Your task to perform on an android device: install app "PUBG MOBILE" Image 0: 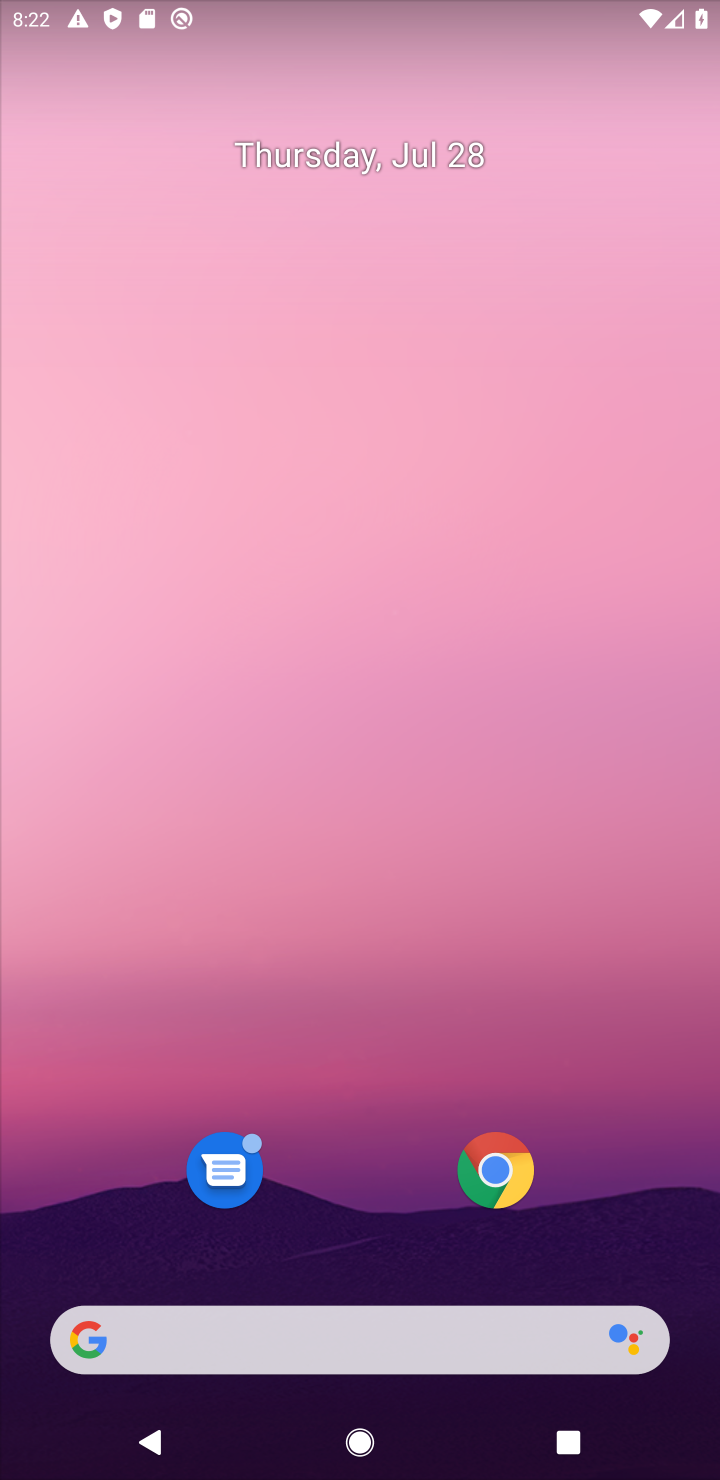
Step 0: drag from (415, 1302) to (402, 422)
Your task to perform on an android device: install app "PUBG MOBILE" Image 1: 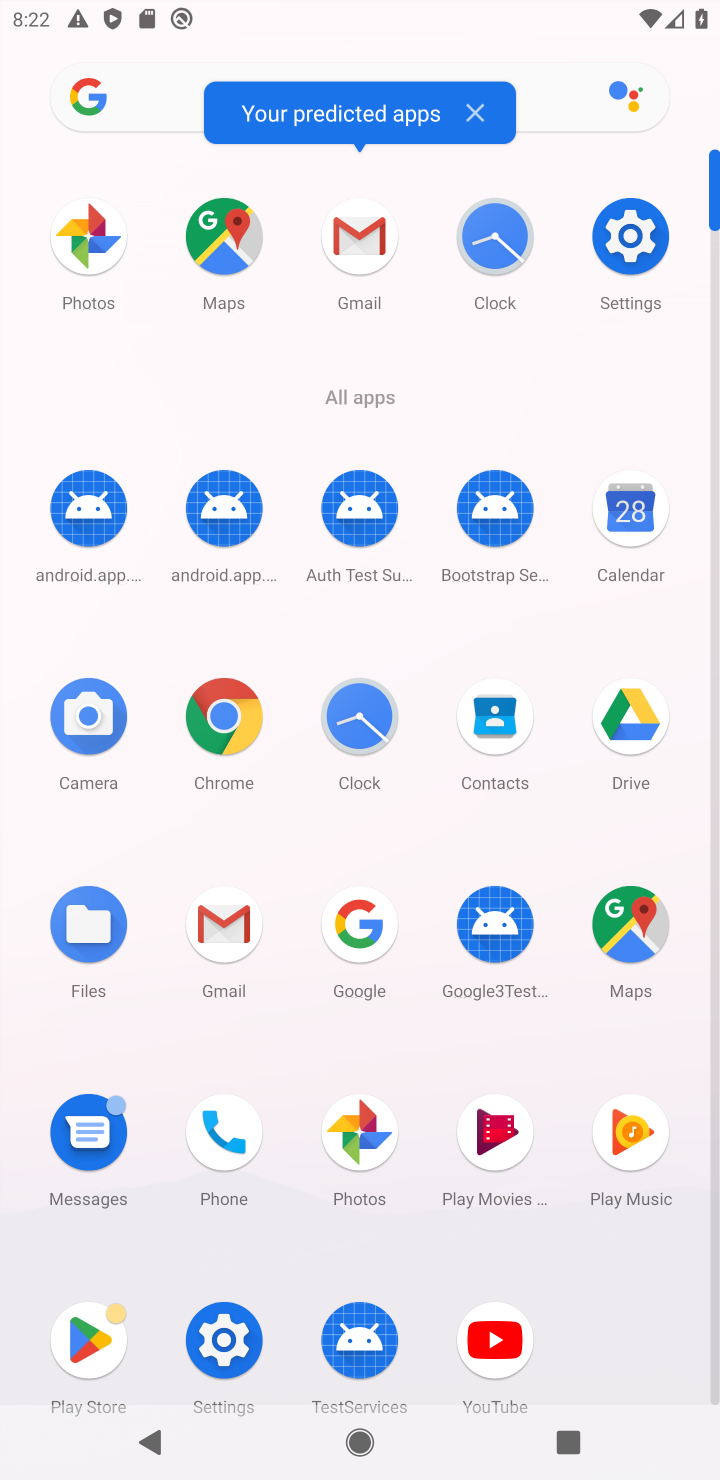
Step 1: click (79, 1351)
Your task to perform on an android device: install app "PUBG MOBILE" Image 2: 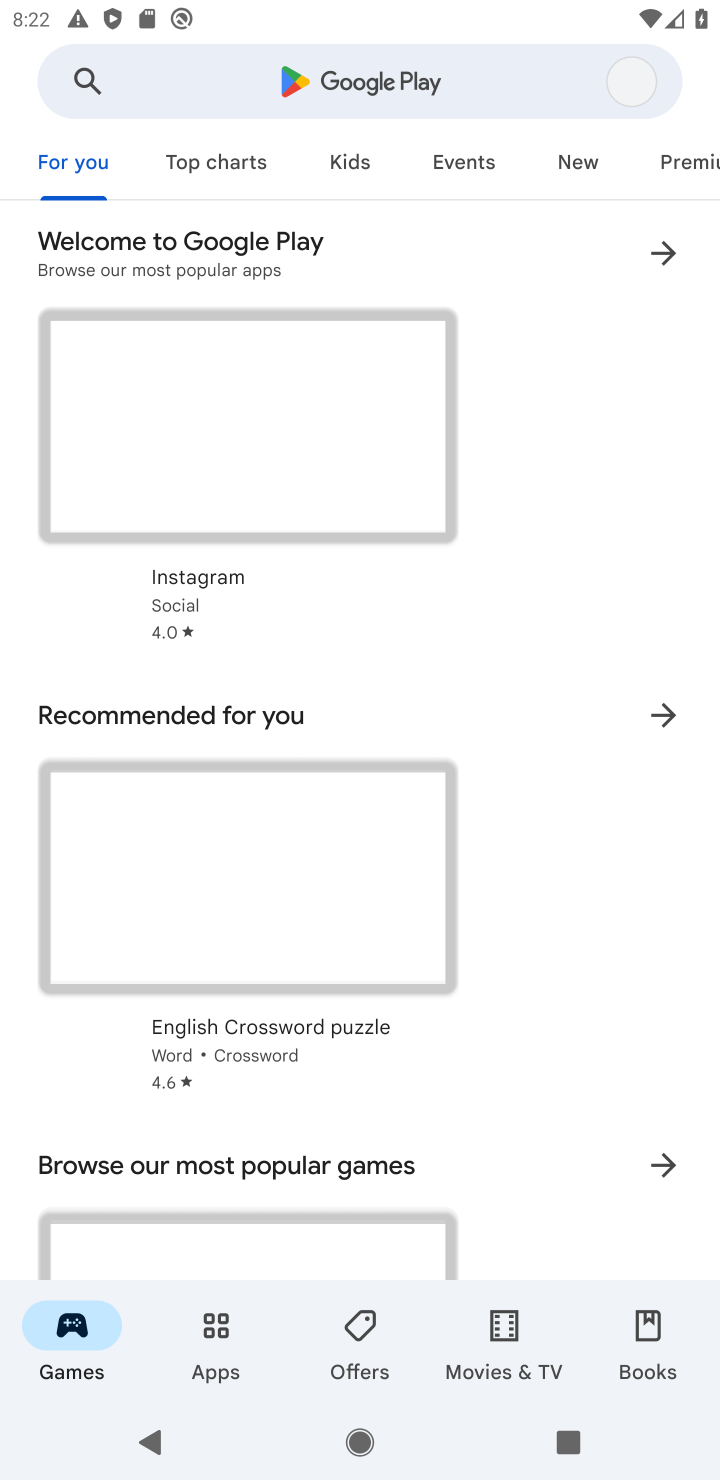
Step 2: click (388, 75)
Your task to perform on an android device: install app "PUBG MOBILE" Image 3: 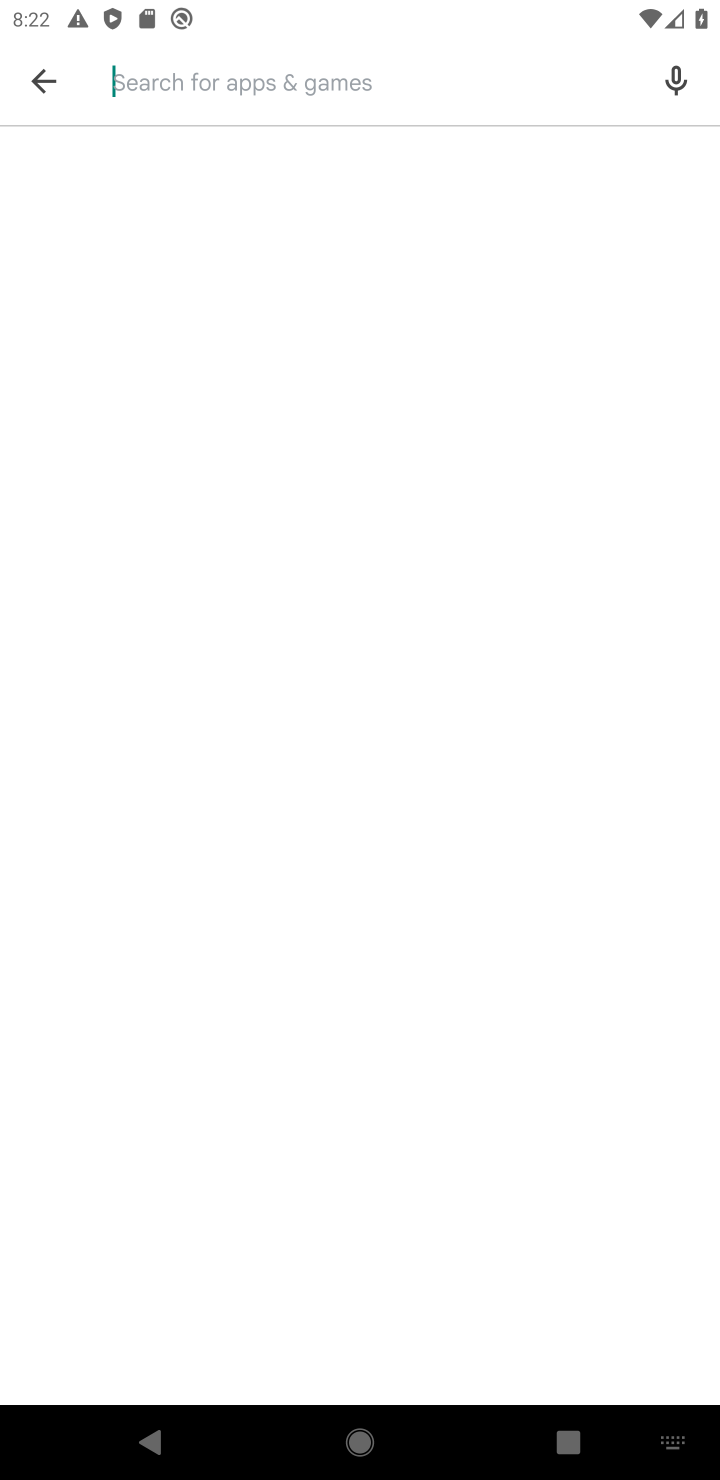
Step 3: type "pubg"
Your task to perform on an android device: install app "PUBG MOBILE" Image 4: 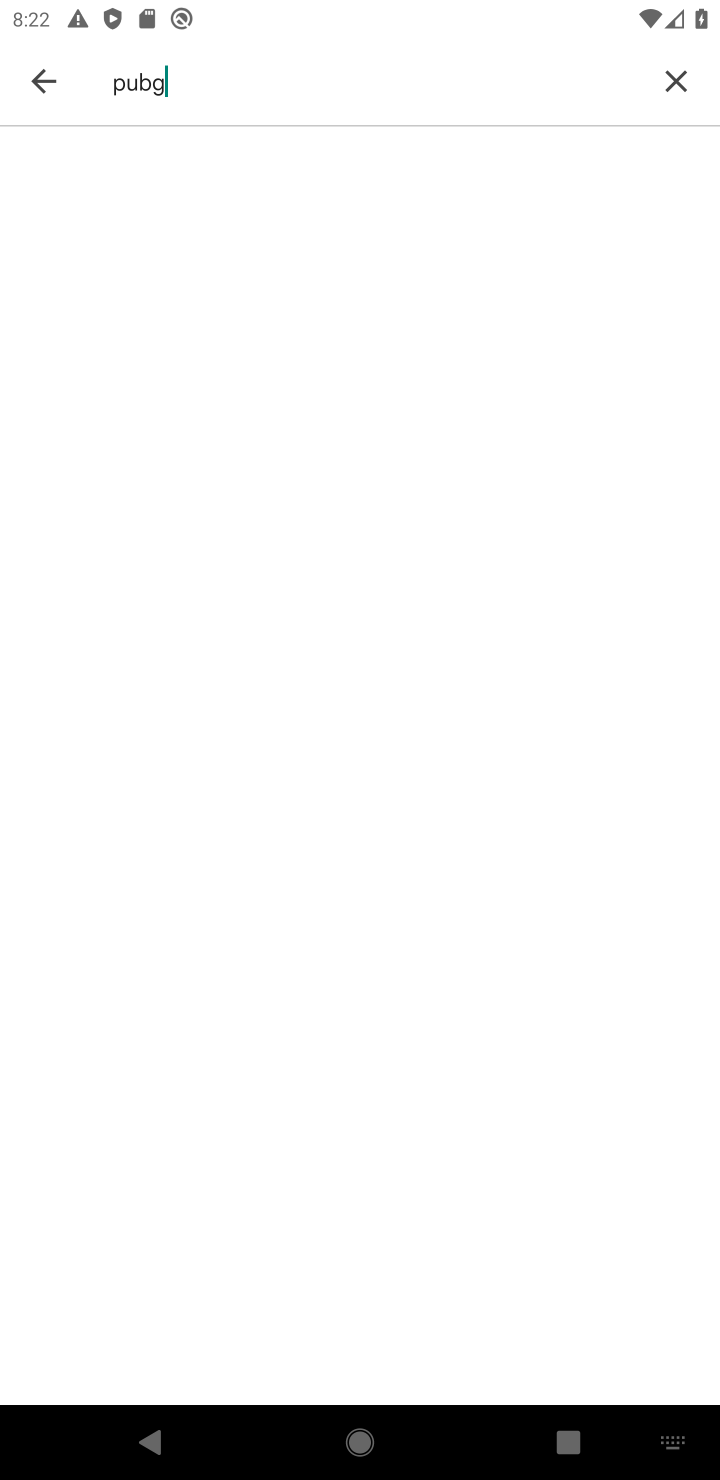
Step 4: type ""
Your task to perform on an android device: install app "PUBG MOBILE" Image 5: 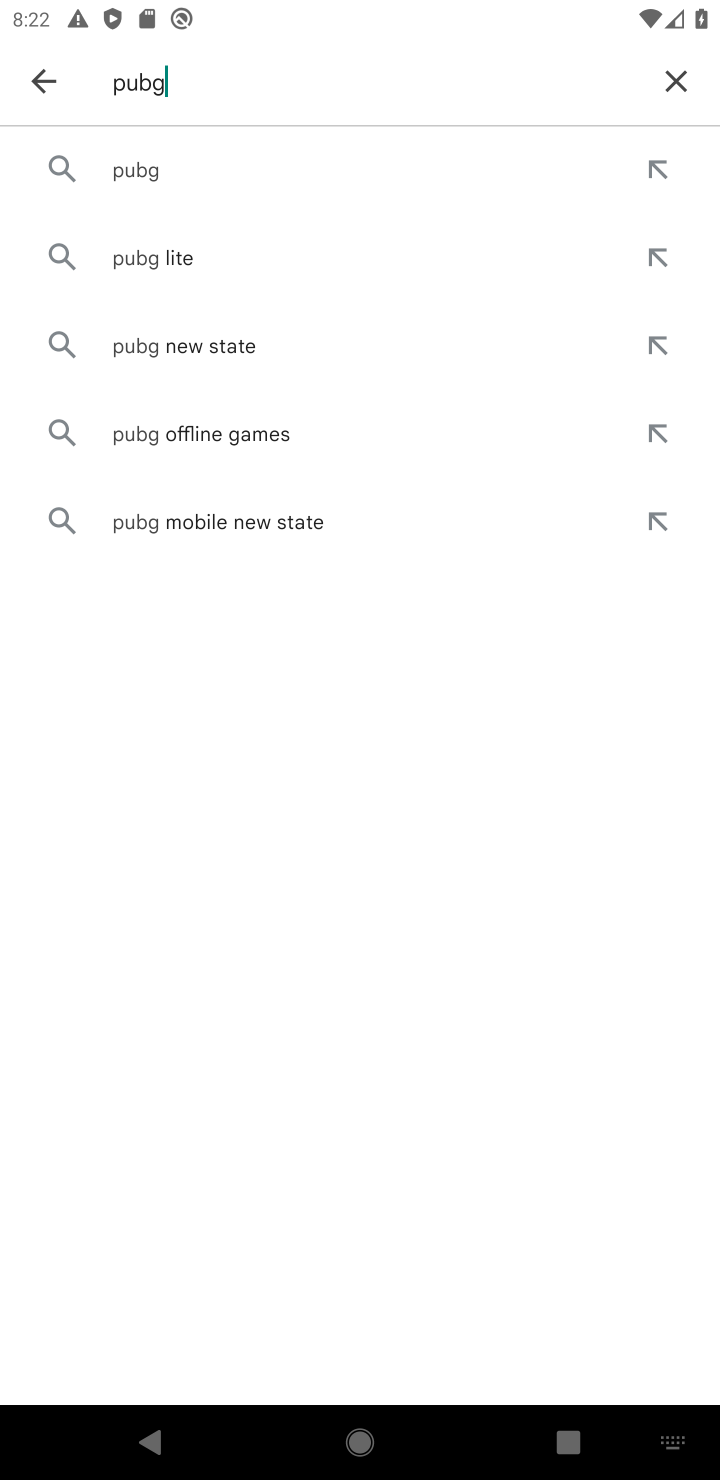
Step 5: click (440, 167)
Your task to perform on an android device: install app "PUBG MOBILE" Image 6: 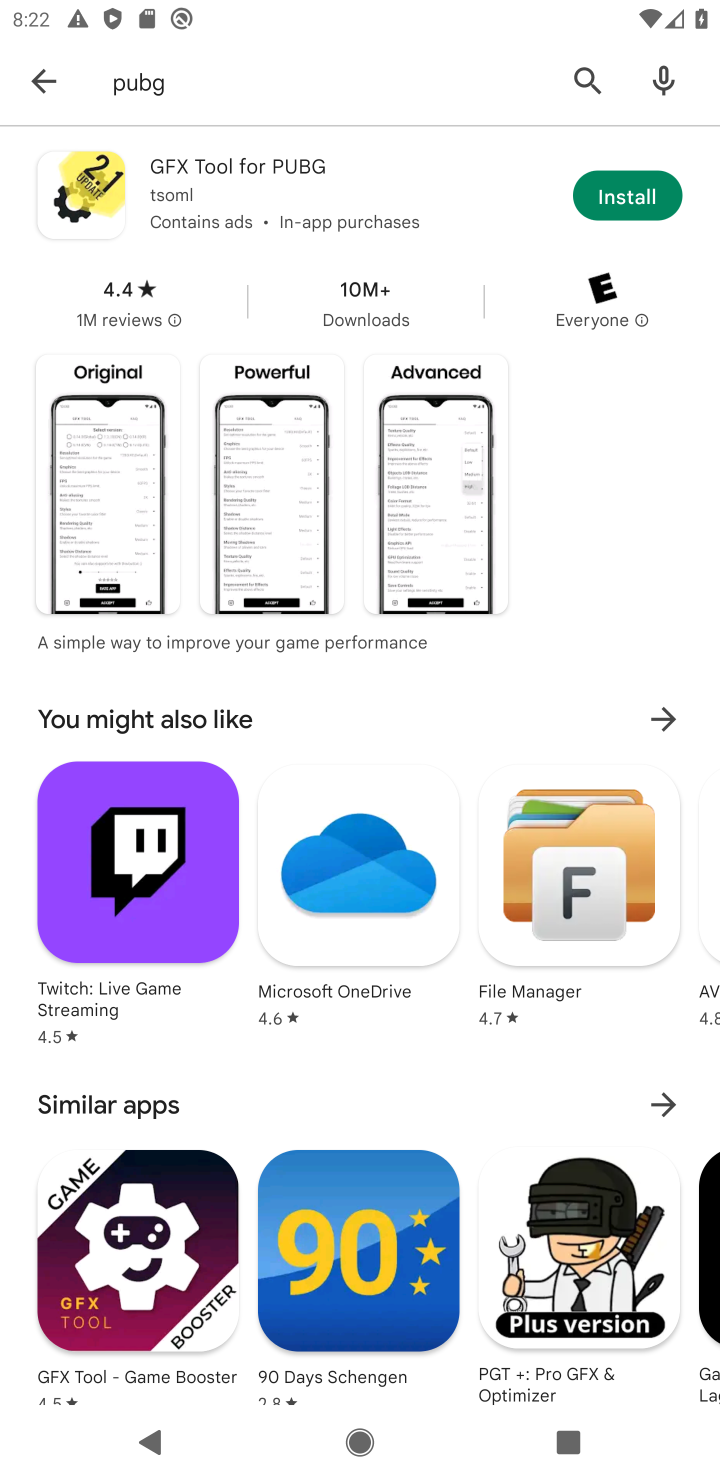
Step 6: task complete